Your task to perform on an android device: toggle wifi Image 0: 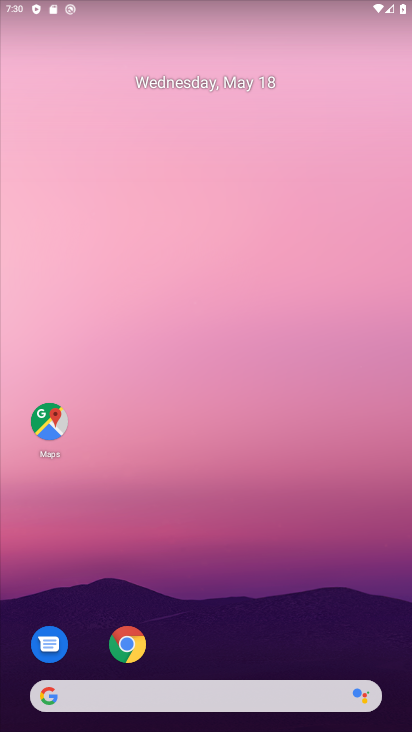
Step 0: drag from (229, 714) to (187, 207)
Your task to perform on an android device: toggle wifi Image 1: 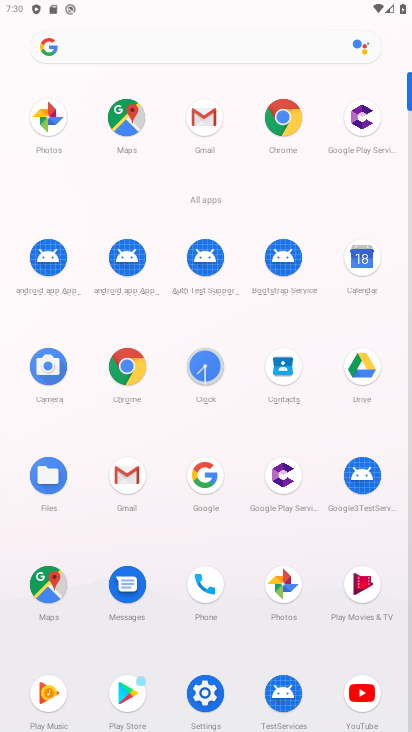
Step 1: click (202, 671)
Your task to perform on an android device: toggle wifi Image 2: 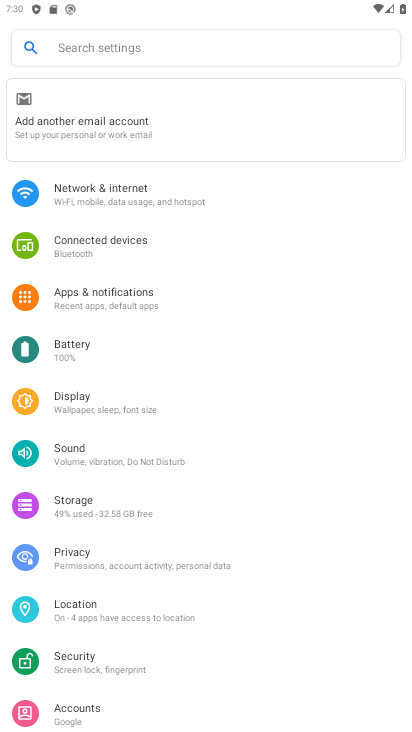
Step 2: click (210, 189)
Your task to perform on an android device: toggle wifi Image 3: 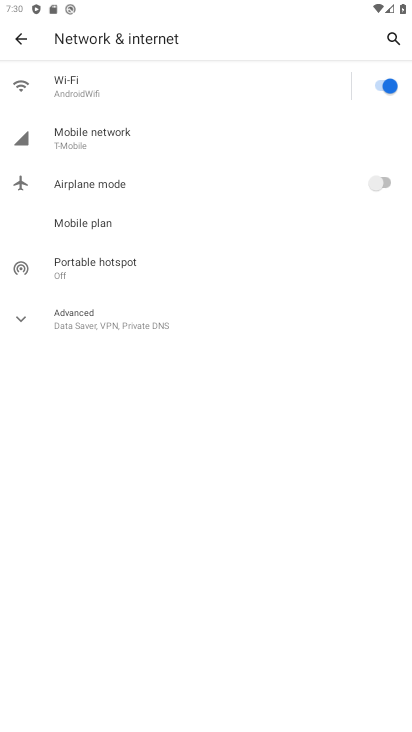
Step 3: click (143, 79)
Your task to perform on an android device: toggle wifi Image 4: 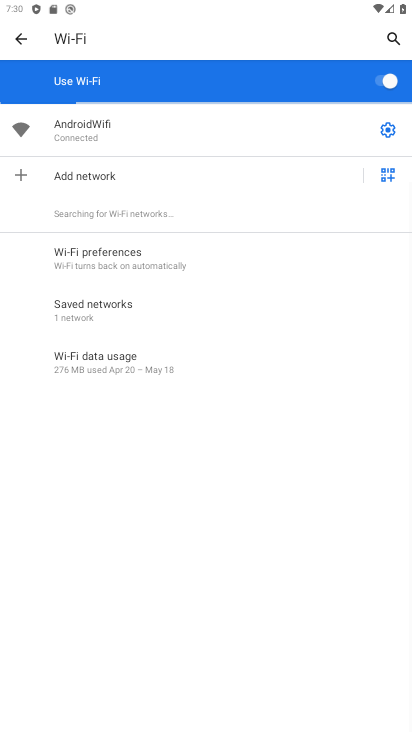
Step 4: task complete